Your task to perform on an android device: Open Chrome and go to the settings page Image 0: 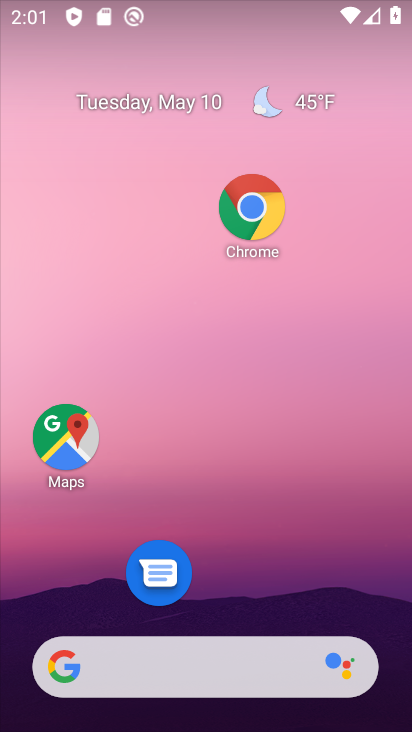
Step 0: click (256, 211)
Your task to perform on an android device: Open Chrome and go to the settings page Image 1: 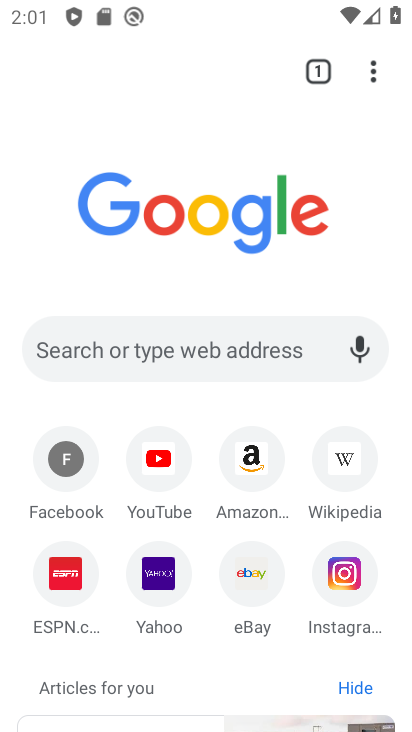
Step 1: click (378, 67)
Your task to perform on an android device: Open Chrome and go to the settings page Image 2: 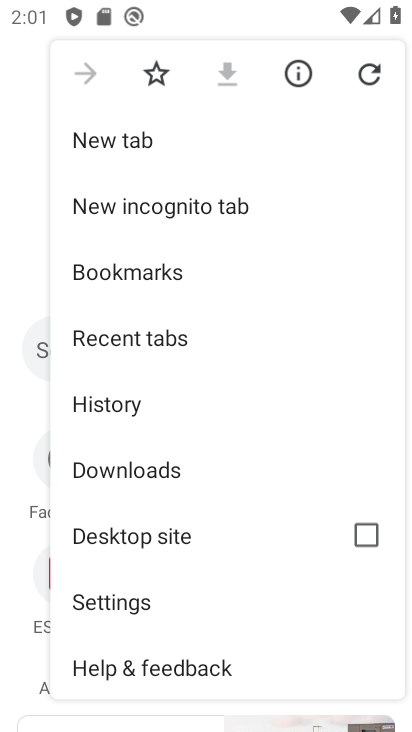
Step 2: click (142, 614)
Your task to perform on an android device: Open Chrome and go to the settings page Image 3: 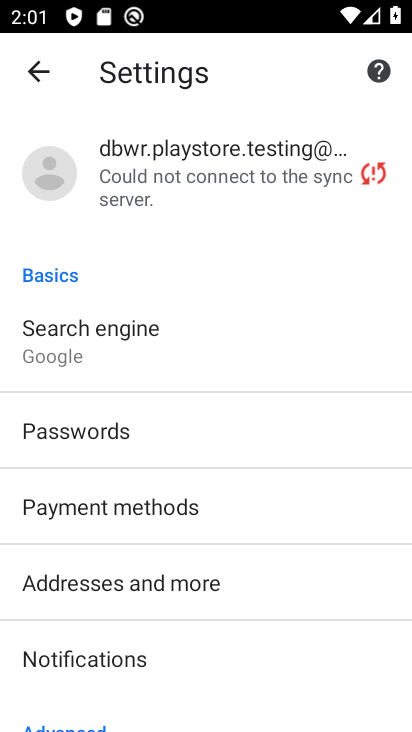
Step 3: task complete